Your task to perform on an android device: turn on airplane mode Image 0: 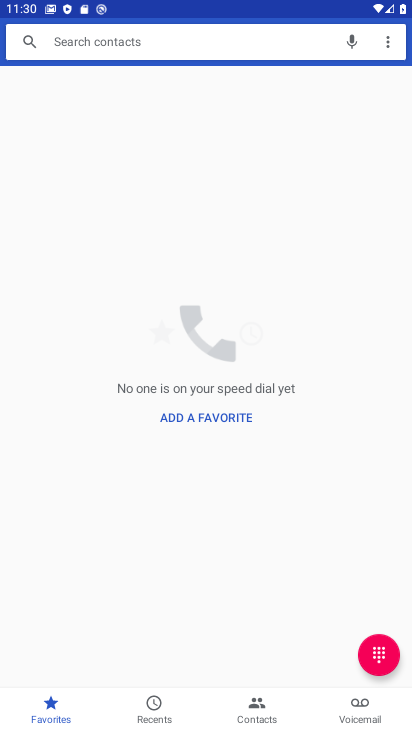
Step 0: press home button
Your task to perform on an android device: turn on airplane mode Image 1: 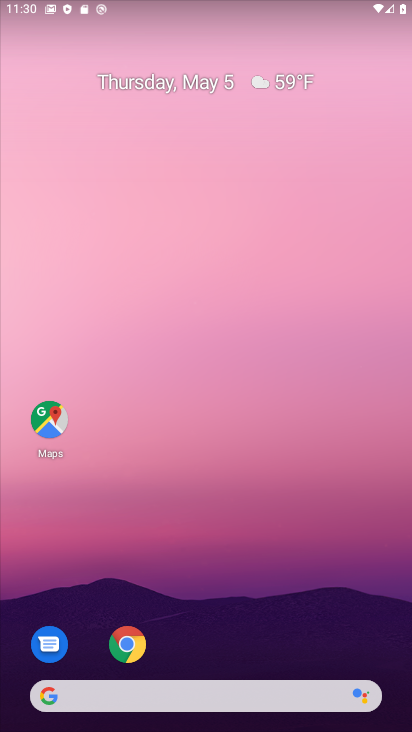
Step 1: drag from (199, 649) to (245, 50)
Your task to perform on an android device: turn on airplane mode Image 2: 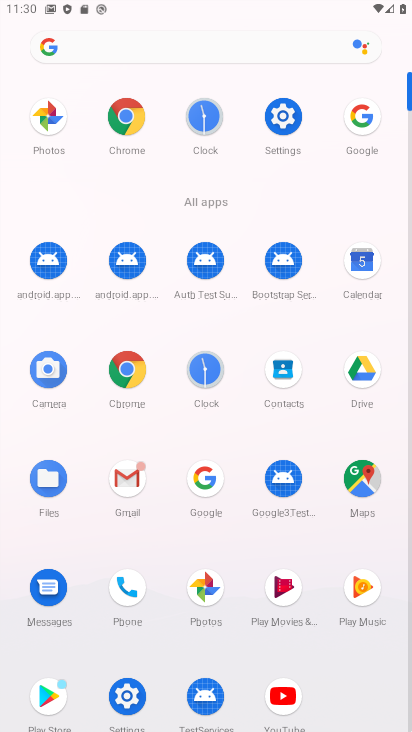
Step 2: click (276, 131)
Your task to perform on an android device: turn on airplane mode Image 3: 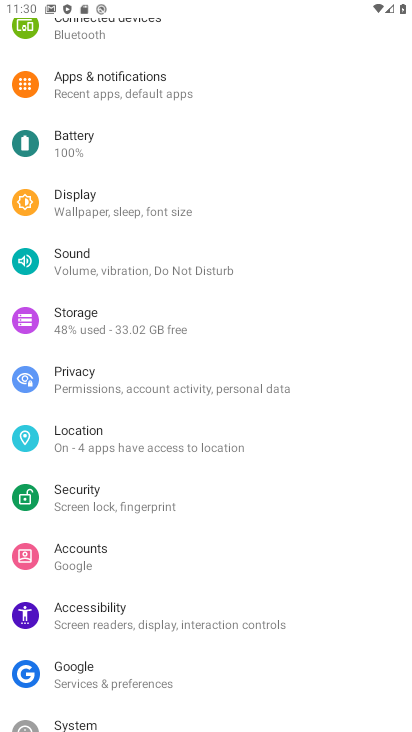
Step 3: drag from (156, 122) to (158, 590)
Your task to perform on an android device: turn on airplane mode Image 4: 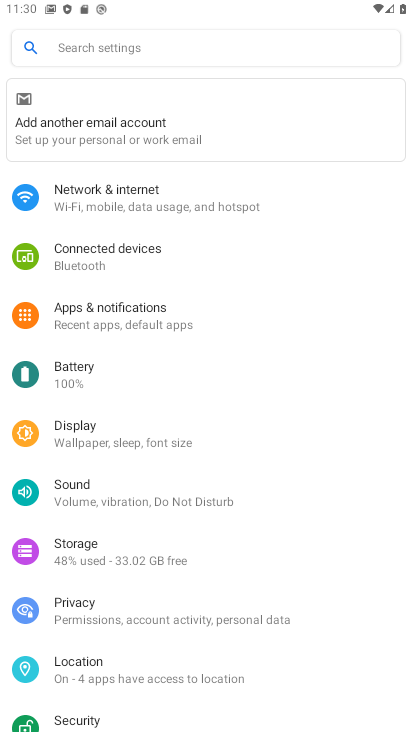
Step 4: click (180, 204)
Your task to perform on an android device: turn on airplane mode Image 5: 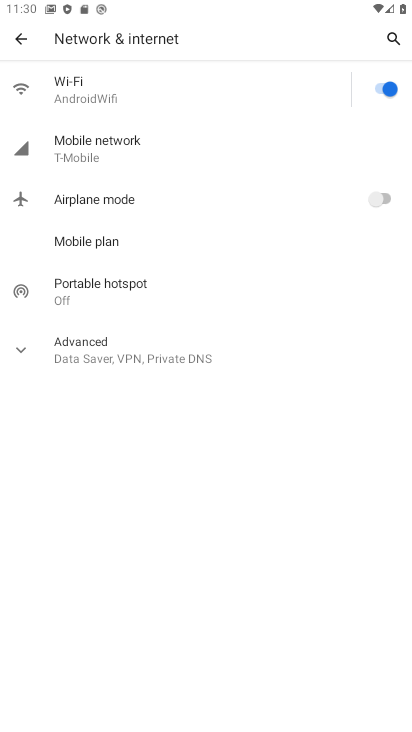
Step 5: click (379, 202)
Your task to perform on an android device: turn on airplane mode Image 6: 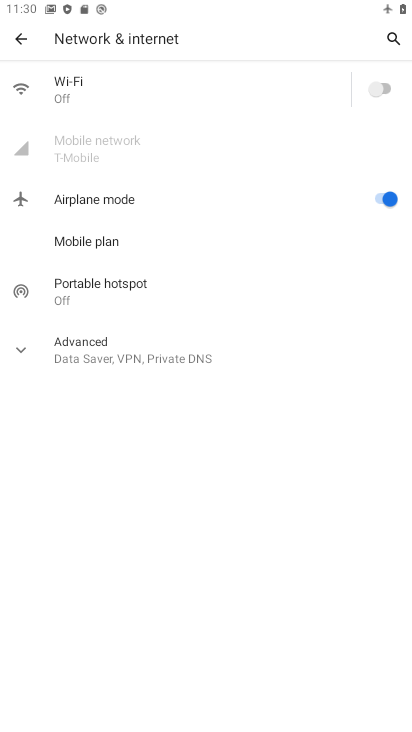
Step 6: task complete